Your task to perform on an android device: Go to Google Image 0: 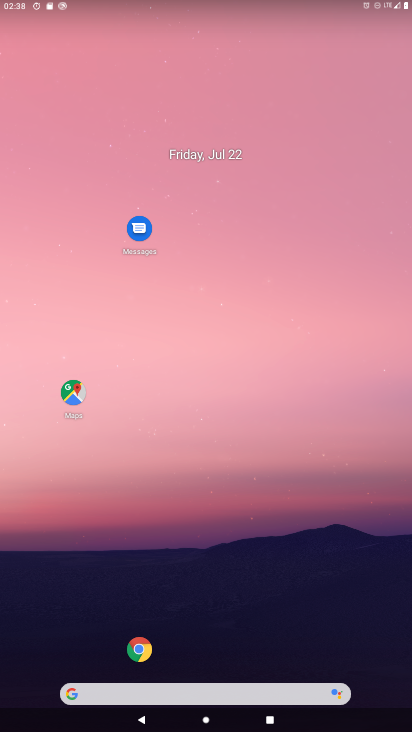
Step 0: click (137, 694)
Your task to perform on an android device: Go to Google Image 1: 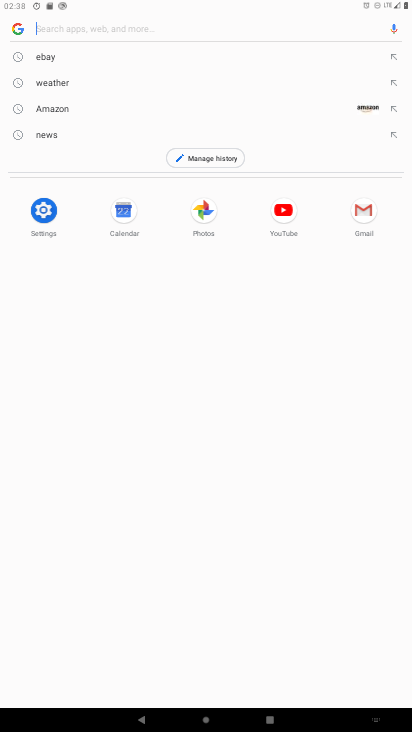
Step 1: task complete